Your task to perform on an android device: turn off smart reply in the gmail app Image 0: 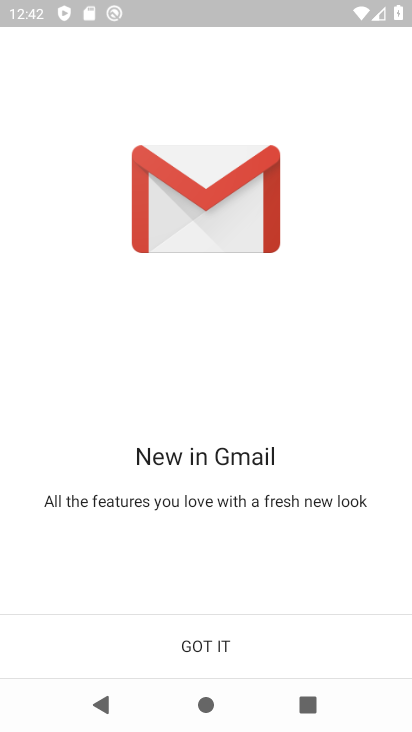
Step 0: press home button
Your task to perform on an android device: turn off smart reply in the gmail app Image 1: 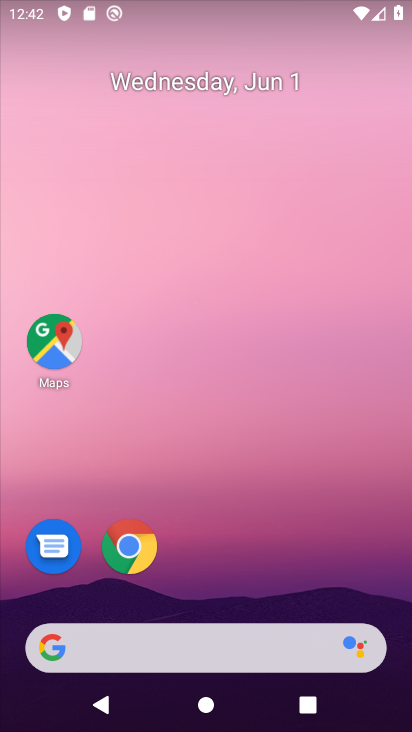
Step 1: drag from (267, 575) to (144, 153)
Your task to perform on an android device: turn off smart reply in the gmail app Image 2: 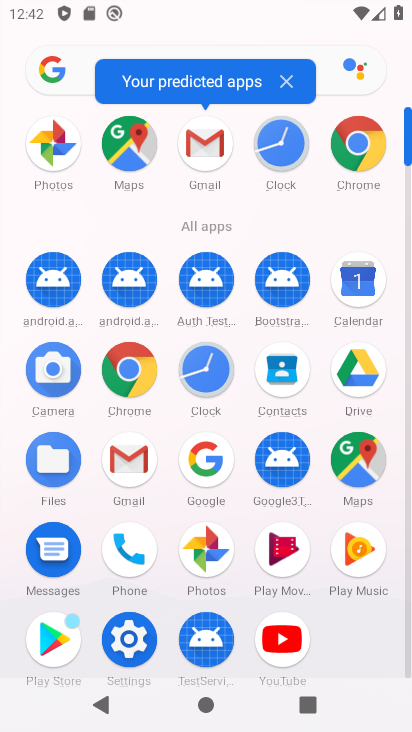
Step 2: click (215, 161)
Your task to perform on an android device: turn off smart reply in the gmail app Image 3: 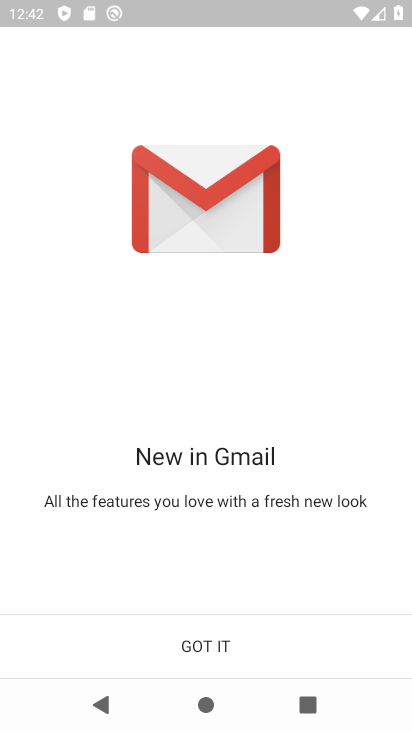
Step 3: click (201, 642)
Your task to perform on an android device: turn off smart reply in the gmail app Image 4: 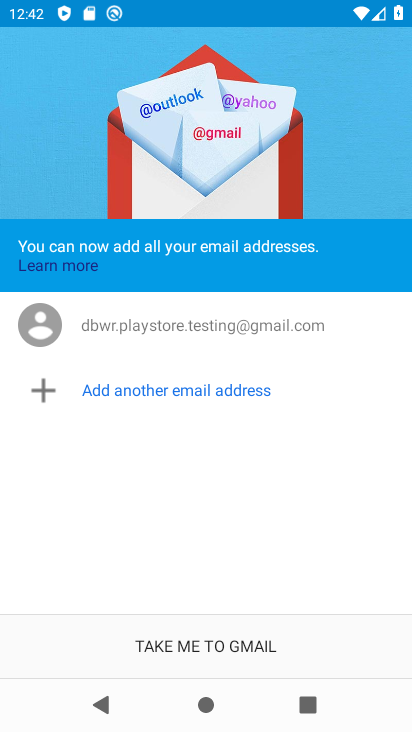
Step 4: click (201, 642)
Your task to perform on an android device: turn off smart reply in the gmail app Image 5: 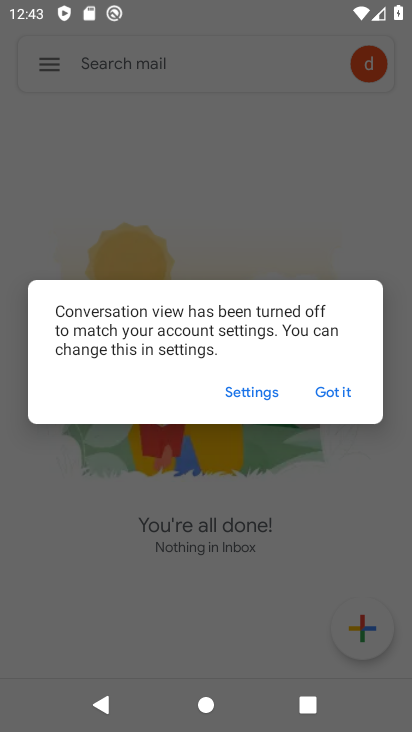
Step 5: click (334, 393)
Your task to perform on an android device: turn off smart reply in the gmail app Image 6: 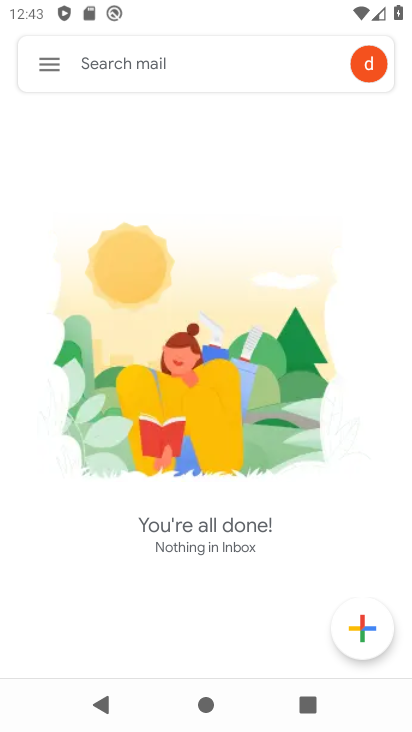
Step 6: click (51, 75)
Your task to perform on an android device: turn off smart reply in the gmail app Image 7: 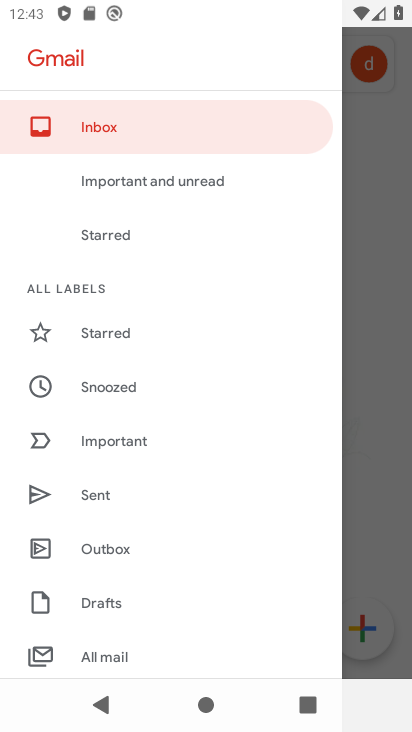
Step 7: drag from (94, 480) to (112, 111)
Your task to perform on an android device: turn off smart reply in the gmail app Image 8: 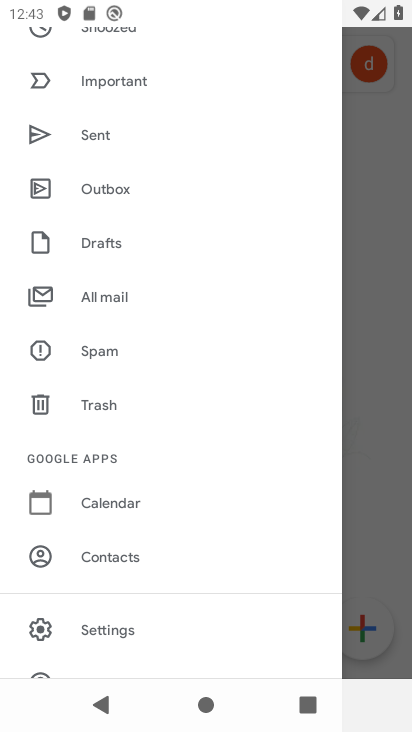
Step 8: click (115, 629)
Your task to perform on an android device: turn off smart reply in the gmail app Image 9: 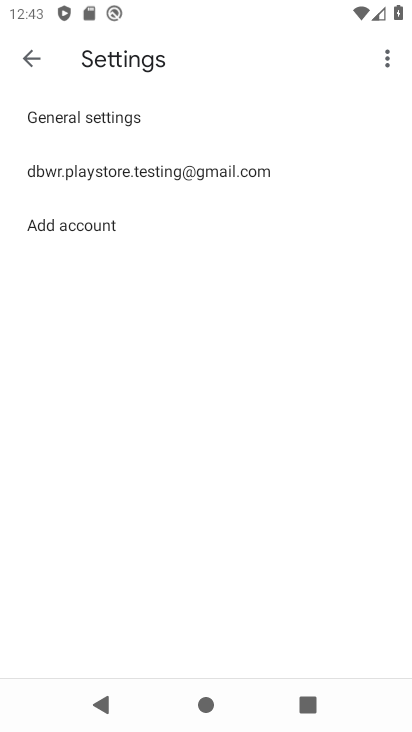
Step 9: click (239, 166)
Your task to perform on an android device: turn off smart reply in the gmail app Image 10: 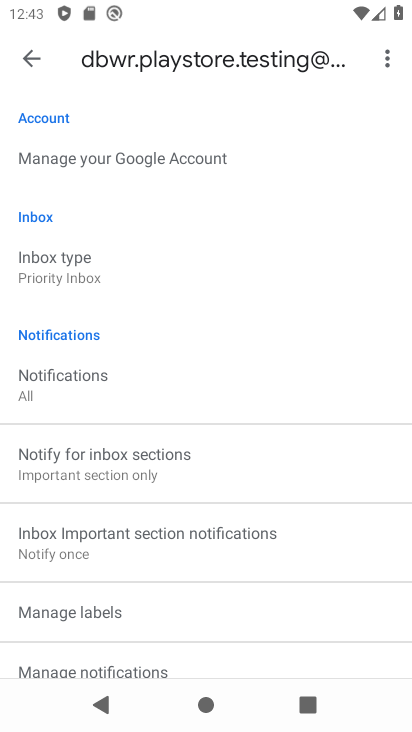
Step 10: drag from (243, 328) to (144, 35)
Your task to perform on an android device: turn off smart reply in the gmail app Image 11: 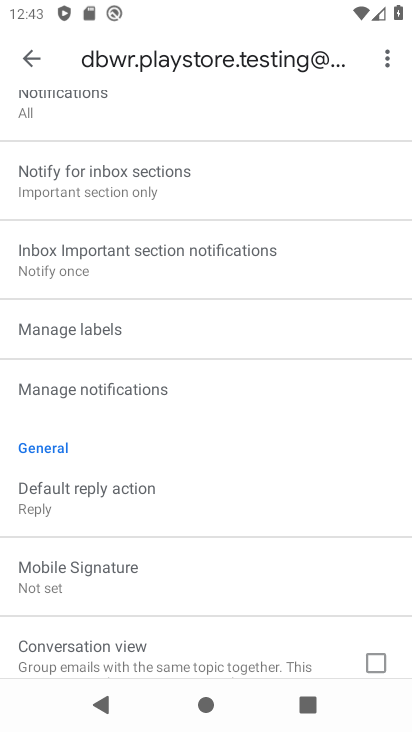
Step 11: drag from (176, 622) to (179, 140)
Your task to perform on an android device: turn off smart reply in the gmail app Image 12: 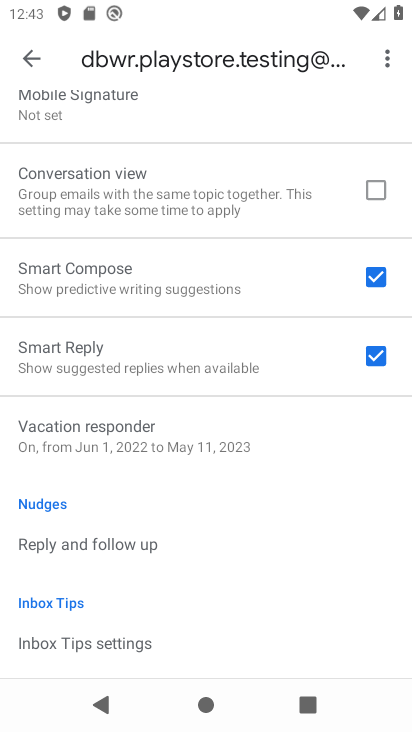
Step 12: click (384, 357)
Your task to perform on an android device: turn off smart reply in the gmail app Image 13: 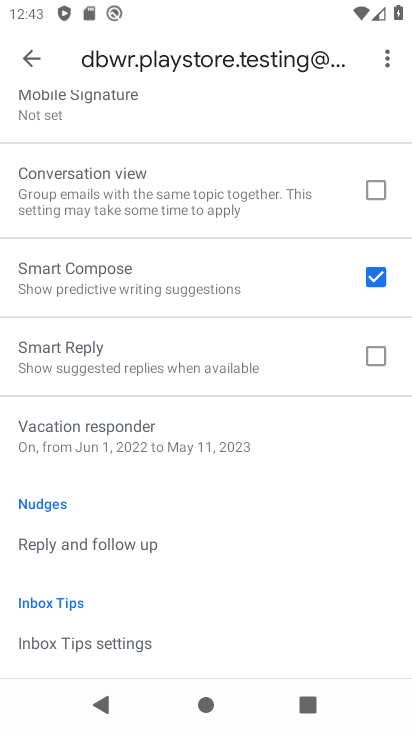
Step 13: task complete